Your task to perform on an android device: find snoozed emails in the gmail app Image 0: 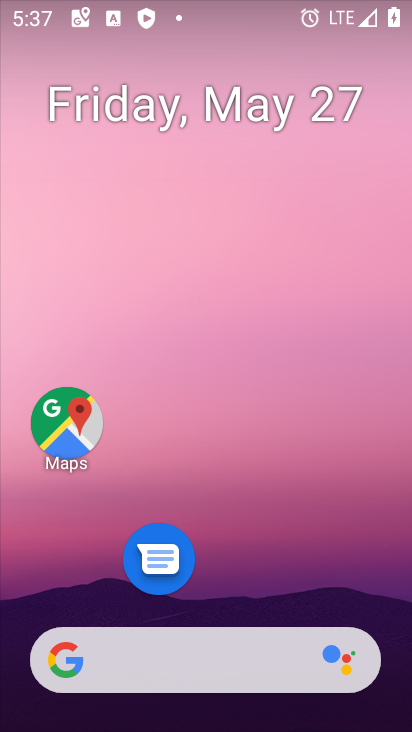
Step 0: drag from (253, 507) to (351, 5)
Your task to perform on an android device: find snoozed emails in the gmail app Image 1: 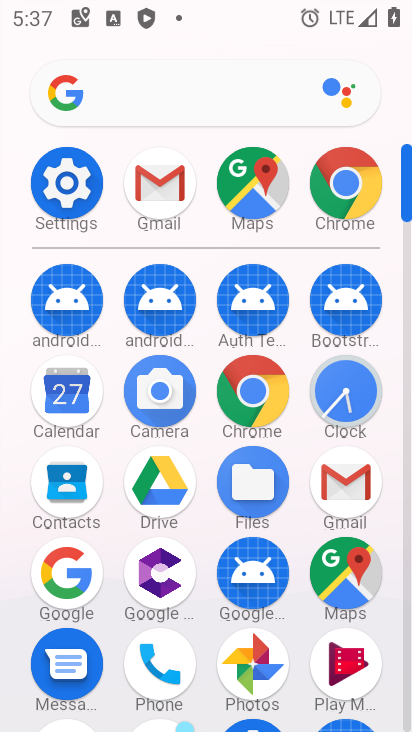
Step 1: click (352, 502)
Your task to perform on an android device: find snoozed emails in the gmail app Image 2: 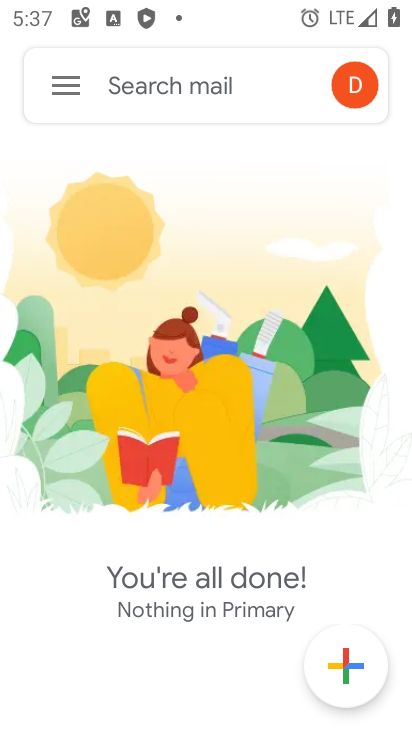
Step 2: click (68, 90)
Your task to perform on an android device: find snoozed emails in the gmail app Image 3: 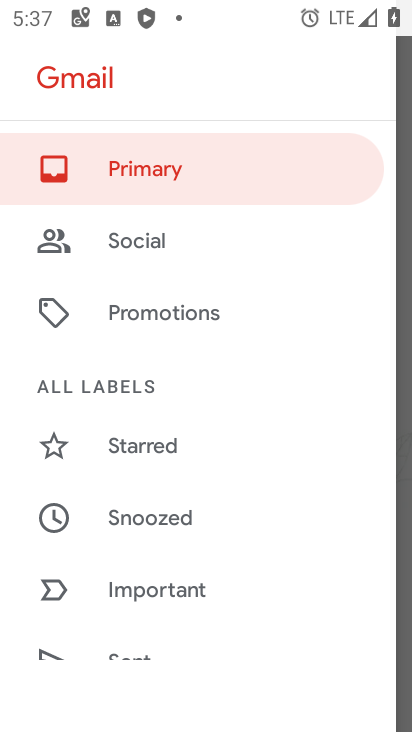
Step 3: click (178, 495)
Your task to perform on an android device: find snoozed emails in the gmail app Image 4: 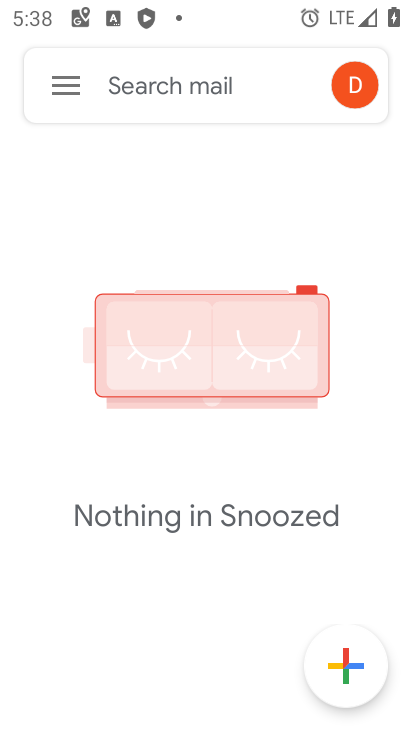
Step 4: task complete